Your task to perform on an android device: find which apps use the phone's location Image 0: 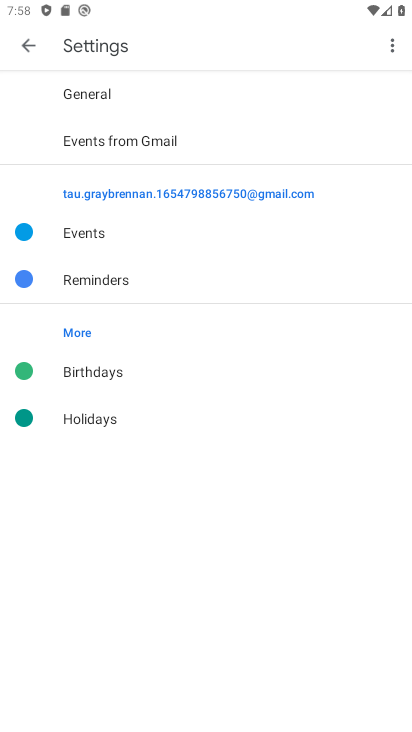
Step 0: press home button
Your task to perform on an android device: find which apps use the phone's location Image 1: 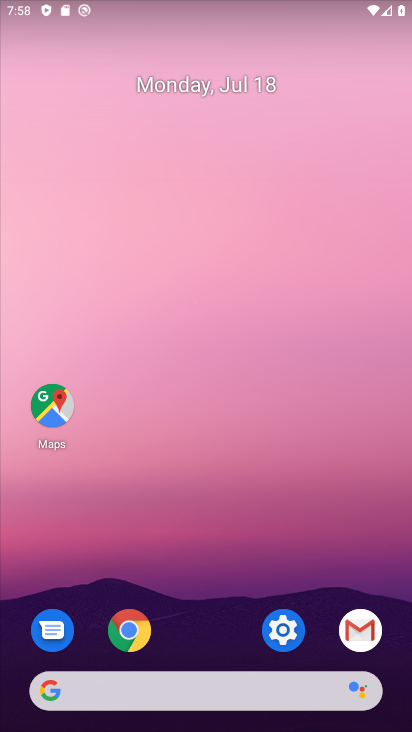
Step 1: drag from (274, 709) to (245, 121)
Your task to perform on an android device: find which apps use the phone's location Image 2: 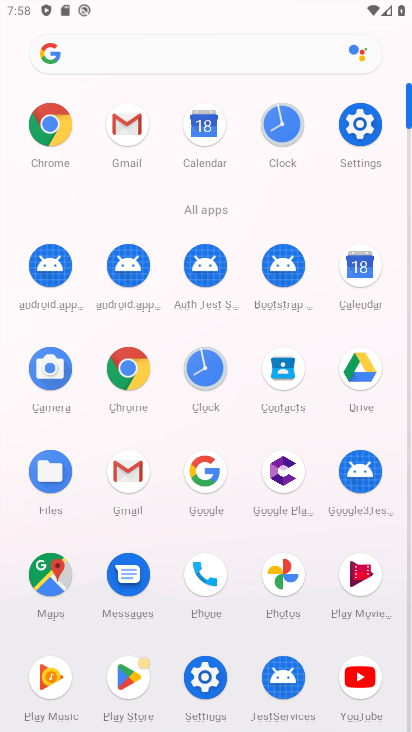
Step 2: click (281, 566)
Your task to perform on an android device: find which apps use the phone's location Image 3: 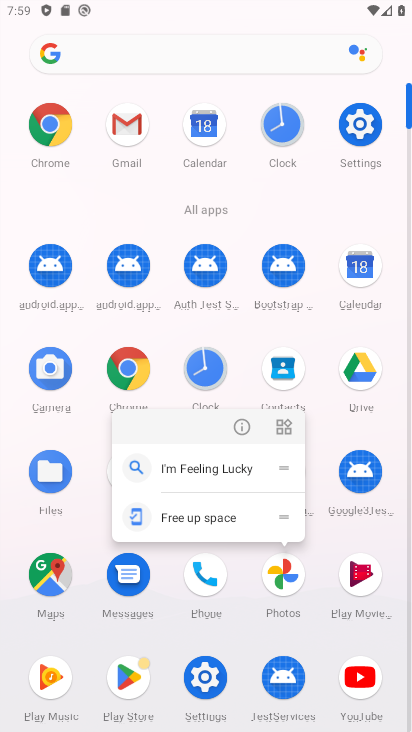
Step 3: click (277, 580)
Your task to perform on an android device: find which apps use the phone's location Image 4: 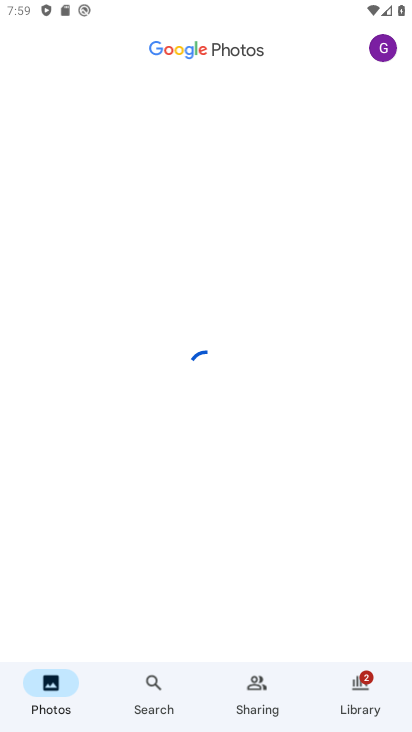
Step 4: press home button
Your task to perform on an android device: find which apps use the phone's location Image 5: 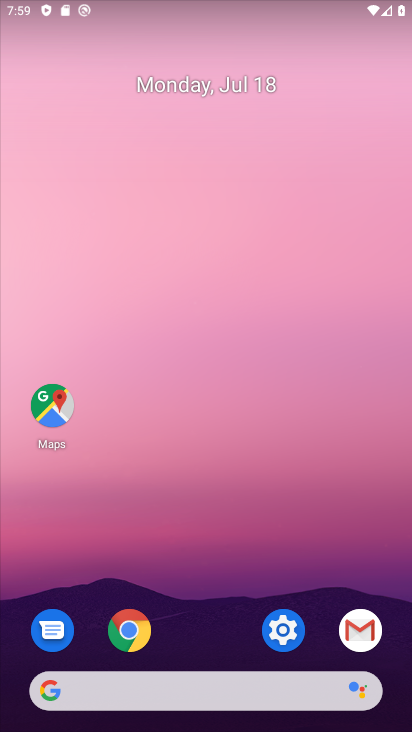
Step 5: click (290, 636)
Your task to perform on an android device: find which apps use the phone's location Image 6: 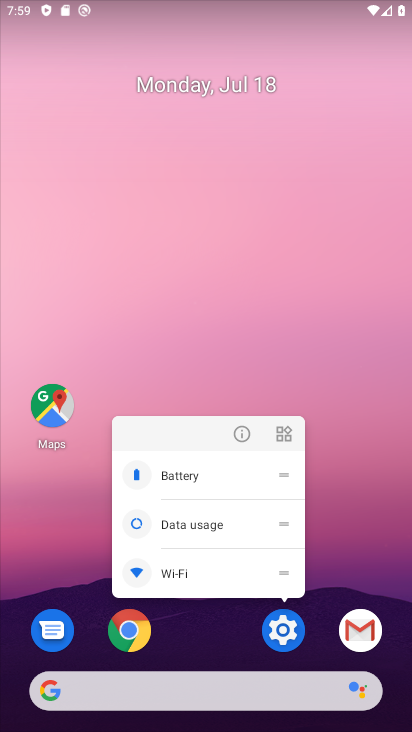
Step 6: click (280, 631)
Your task to perform on an android device: find which apps use the phone's location Image 7: 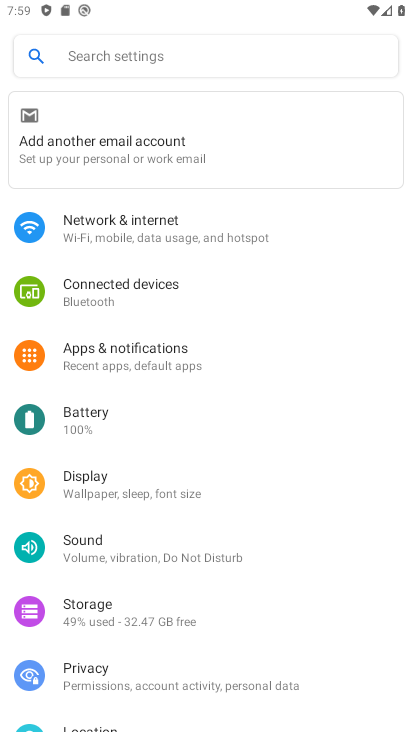
Step 7: click (132, 723)
Your task to perform on an android device: find which apps use the phone's location Image 8: 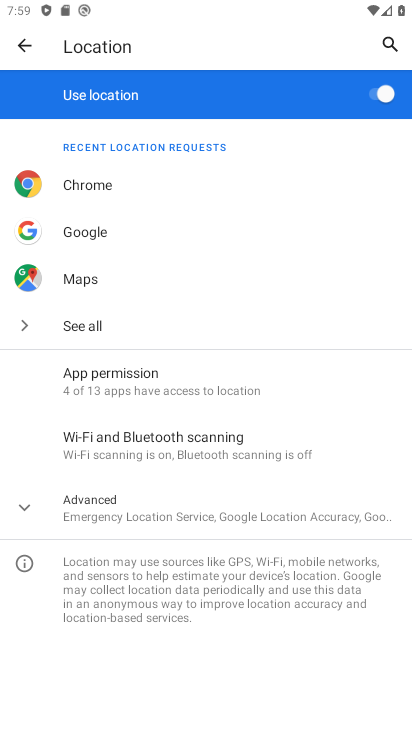
Step 8: task complete